Your task to perform on an android device: Open internet settings Image 0: 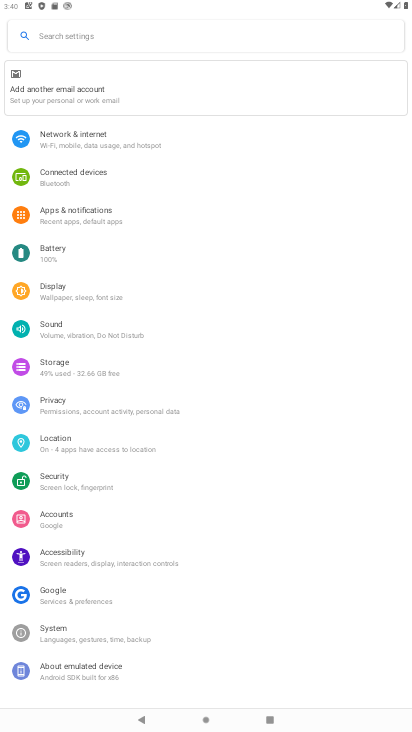
Step 0: click (79, 136)
Your task to perform on an android device: Open internet settings Image 1: 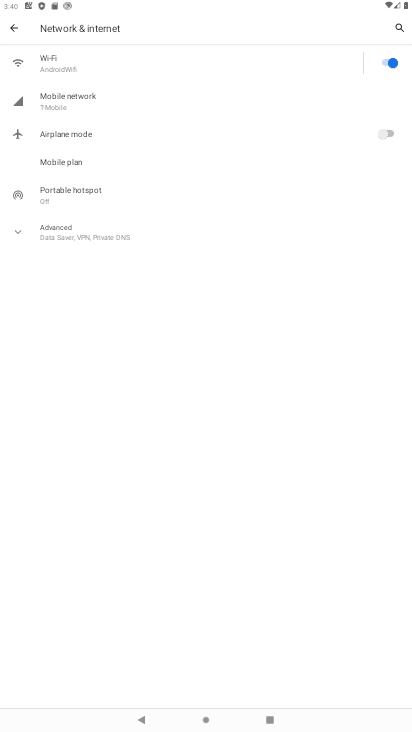
Step 1: press home button
Your task to perform on an android device: Open internet settings Image 2: 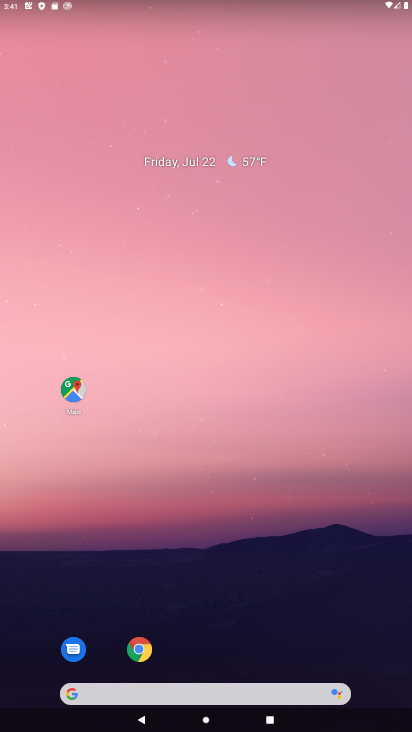
Step 2: drag from (30, 656) to (223, 280)
Your task to perform on an android device: Open internet settings Image 3: 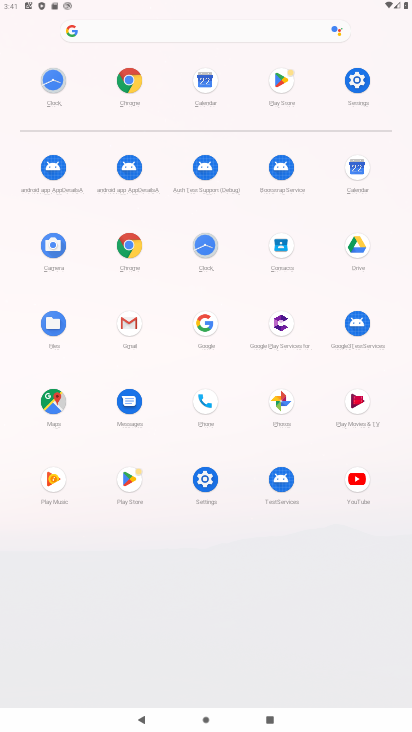
Step 3: click (207, 495)
Your task to perform on an android device: Open internet settings Image 4: 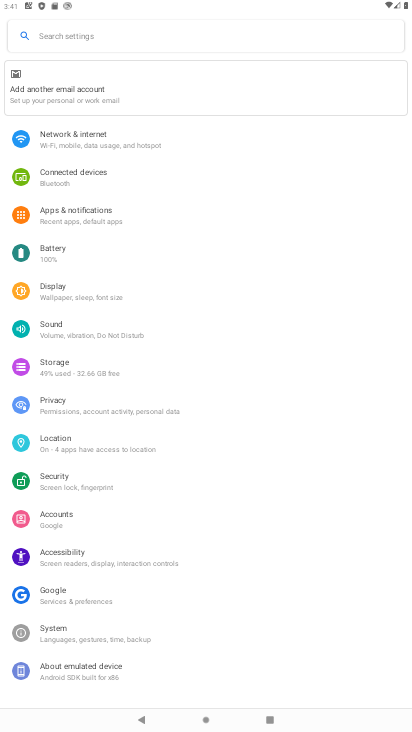
Step 4: click (116, 136)
Your task to perform on an android device: Open internet settings Image 5: 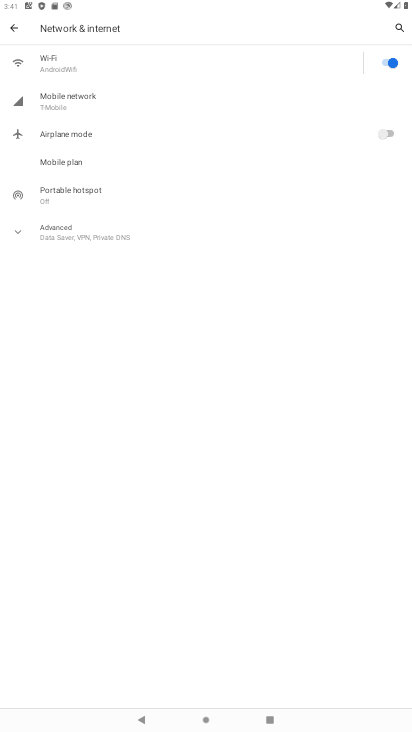
Step 5: task complete